Your task to perform on an android device: turn off airplane mode Image 0: 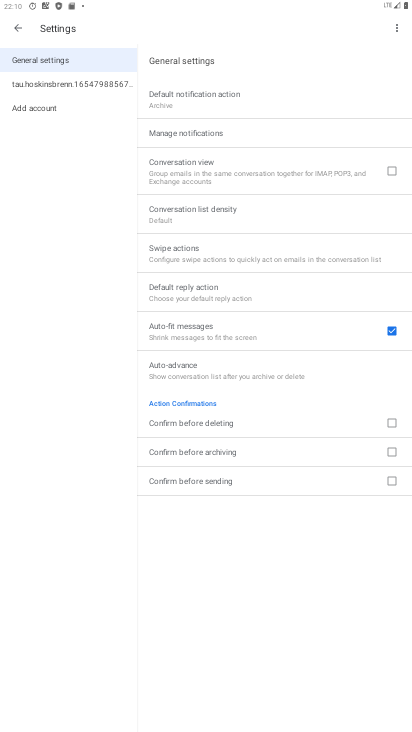
Step 0: drag from (235, 490) to (242, 406)
Your task to perform on an android device: turn off airplane mode Image 1: 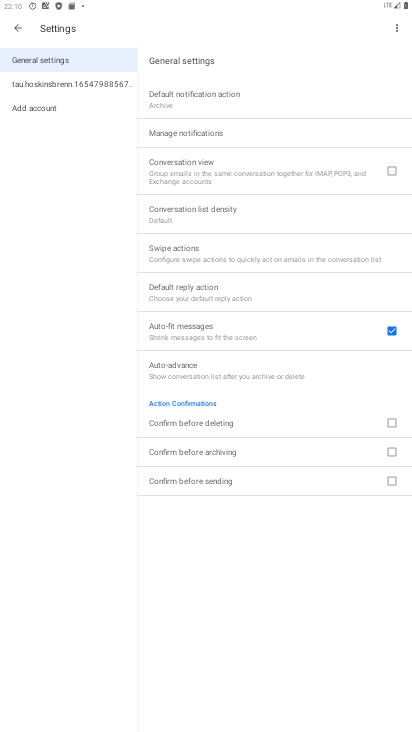
Step 1: press home button
Your task to perform on an android device: turn off airplane mode Image 2: 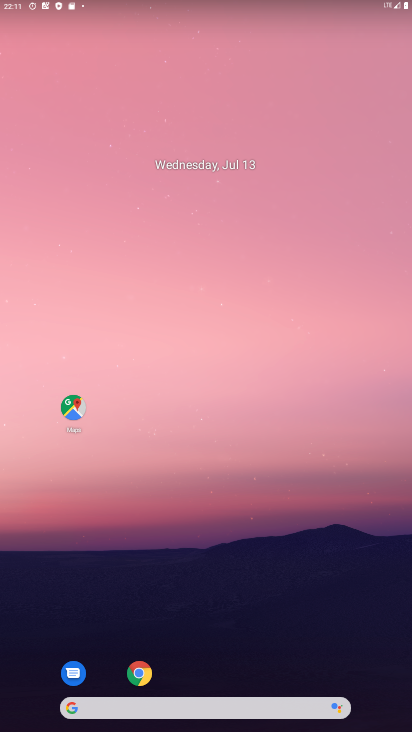
Step 2: drag from (173, 678) to (210, 38)
Your task to perform on an android device: turn off airplane mode Image 3: 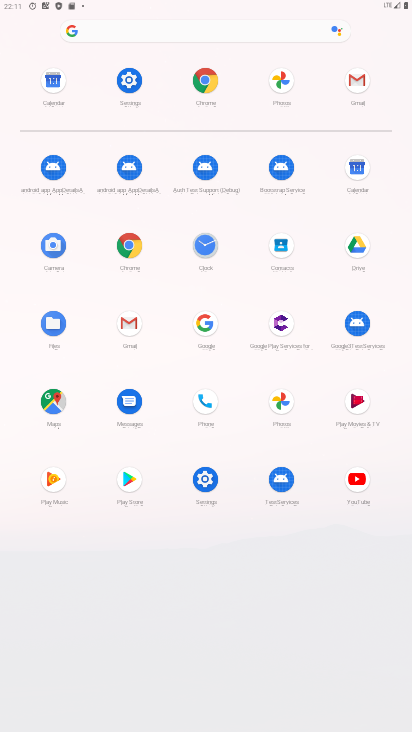
Step 3: click (202, 487)
Your task to perform on an android device: turn off airplane mode Image 4: 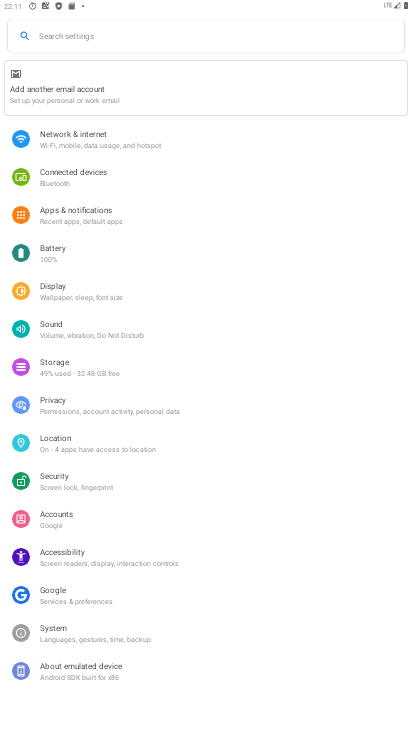
Step 4: click (94, 137)
Your task to perform on an android device: turn off airplane mode Image 5: 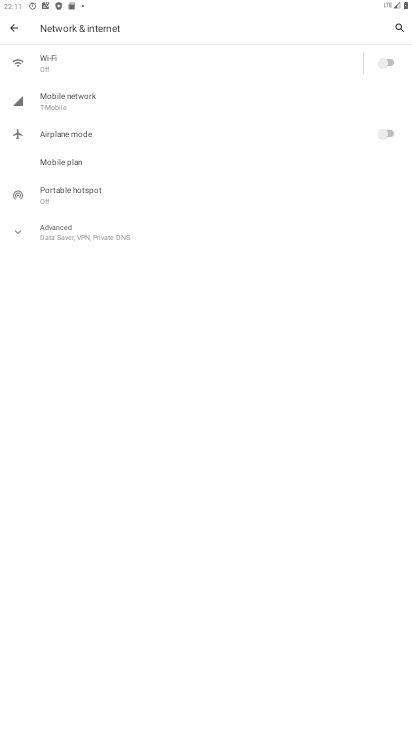
Step 5: task complete